Your task to perform on an android device: turn on sleep mode Image 0: 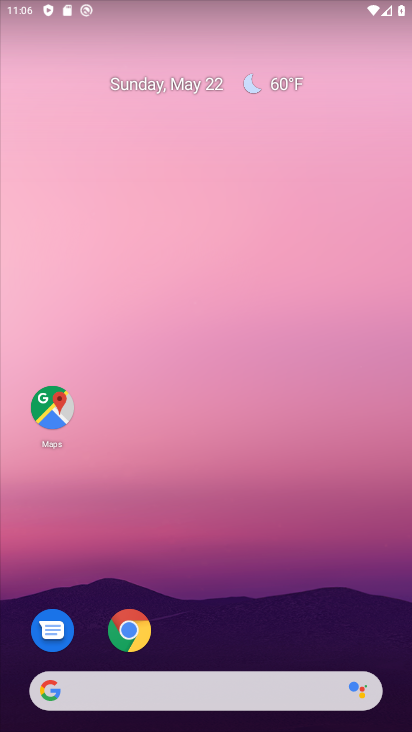
Step 0: drag from (254, 591) to (279, 66)
Your task to perform on an android device: turn on sleep mode Image 1: 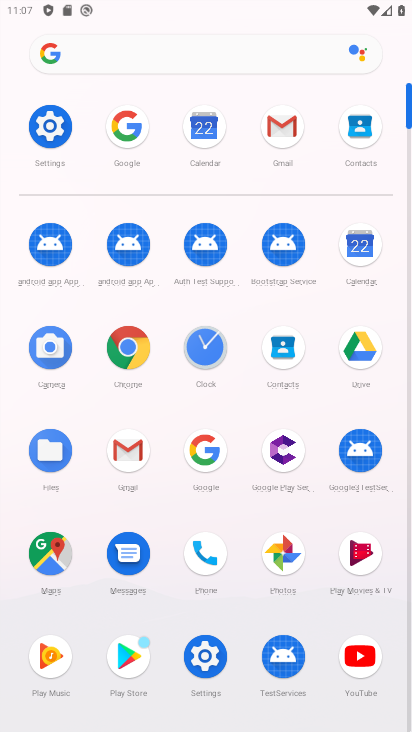
Step 1: click (48, 125)
Your task to perform on an android device: turn on sleep mode Image 2: 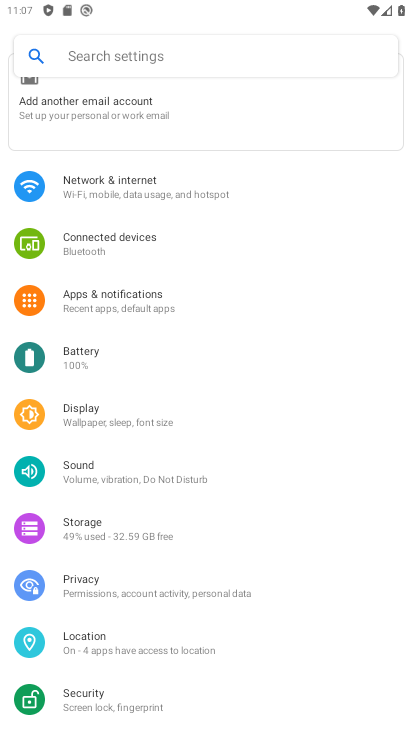
Step 2: drag from (122, 375) to (153, 293)
Your task to perform on an android device: turn on sleep mode Image 3: 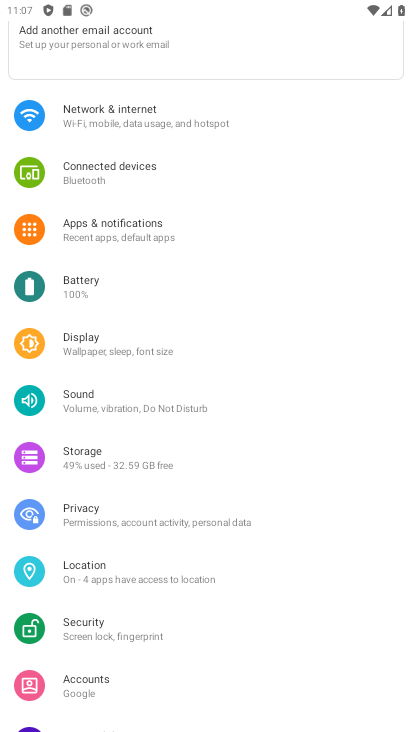
Step 3: drag from (86, 500) to (119, 414)
Your task to perform on an android device: turn on sleep mode Image 4: 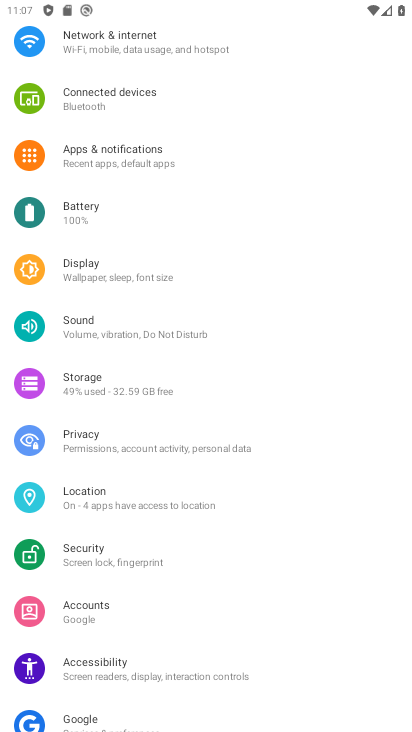
Step 4: click (152, 286)
Your task to perform on an android device: turn on sleep mode Image 5: 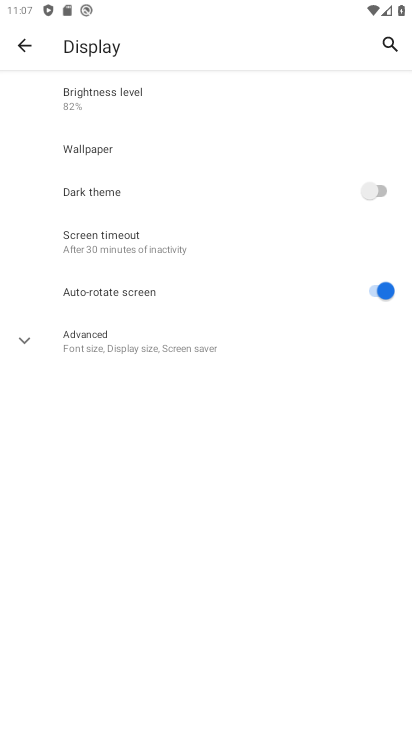
Step 5: click (132, 337)
Your task to perform on an android device: turn on sleep mode Image 6: 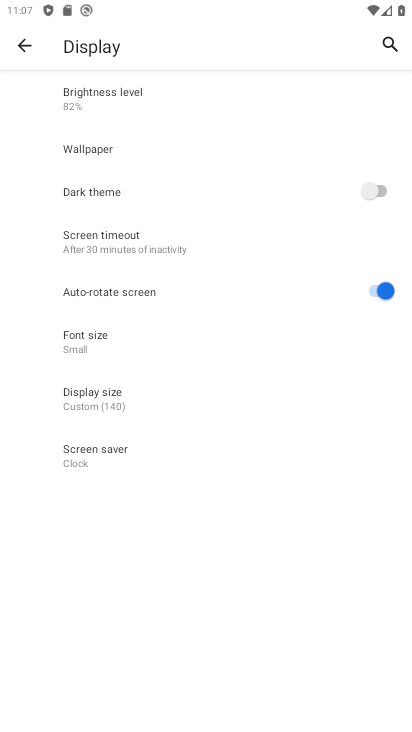
Step 6: click (137, 240)
Your task to perform on an android device: turn on sleep mode Image 7: 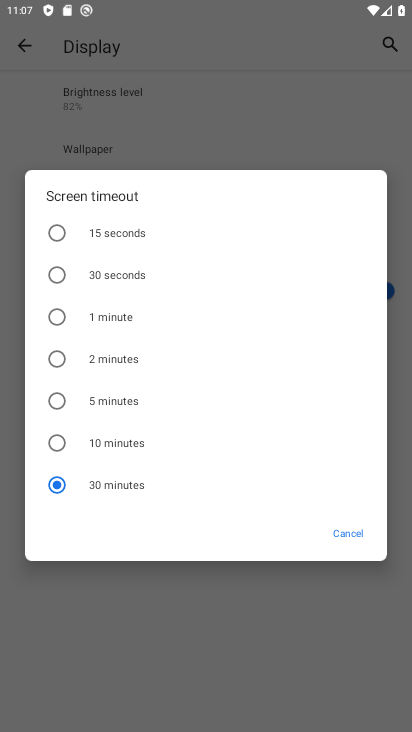
Step 7: click (340, 540)
Your task to perform on an android device: turn on sleep mode Image 8: 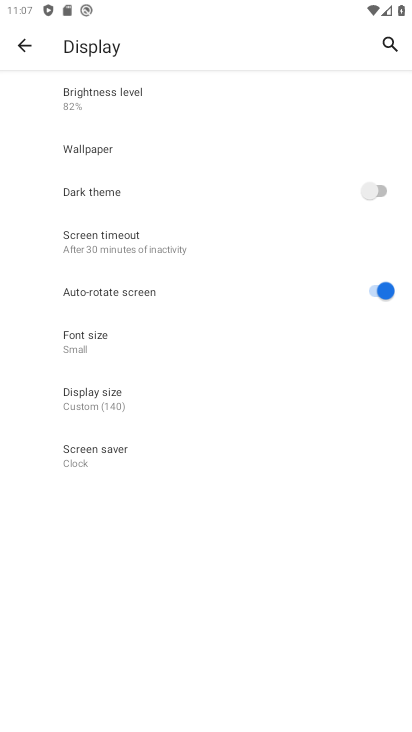
Step 8: task complete